Your task to perform on an android device: Open Youtube and go to the subscriptions tab Image 0: 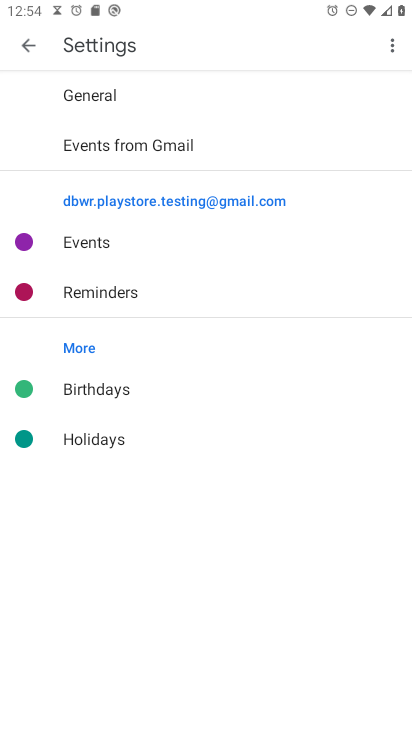
Step 0: press home button
Your task to perform on an android device: Open Youtube and go to the subscriptions tab Image 1: 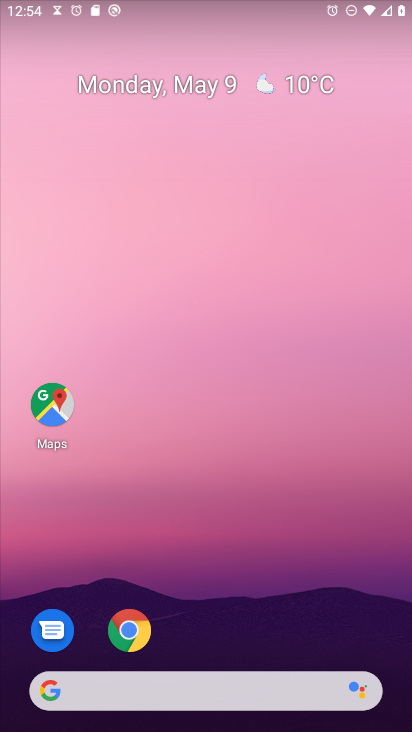
Step 1: drag from (225, 692) to (340, 87)
Your task to perform on an android device: Open Youtube and go to the subscriptions tab Image 2: 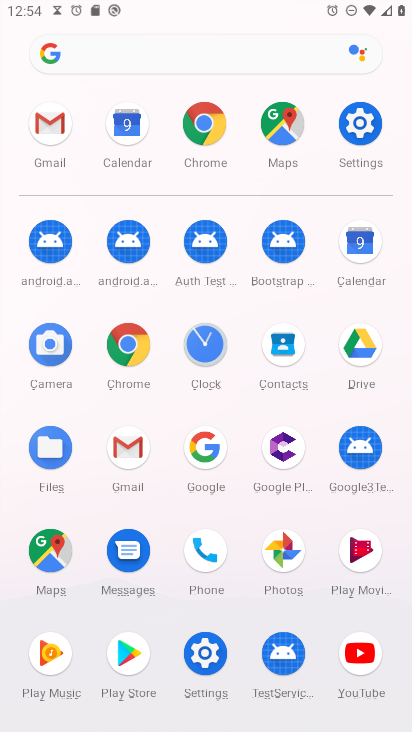
Step 2: click (358, 657)
Your task to perform on an android device: Open Youtube and go to the subscriptions tab Image 3: 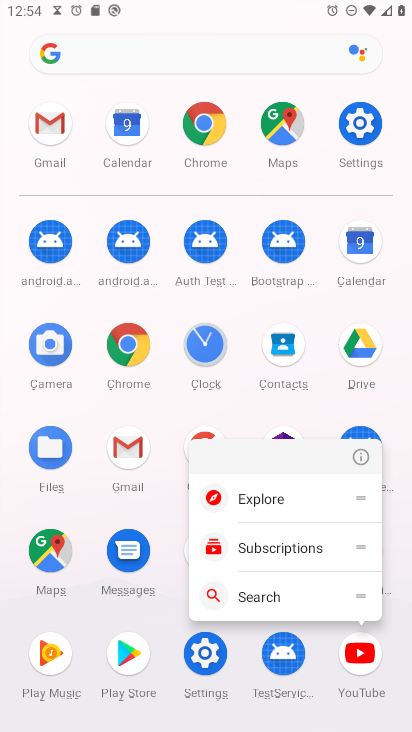
Step 3: click (363, 651)
Your task to perform on an android device: Open Youtube and go to the subscriptions tab Image 4: 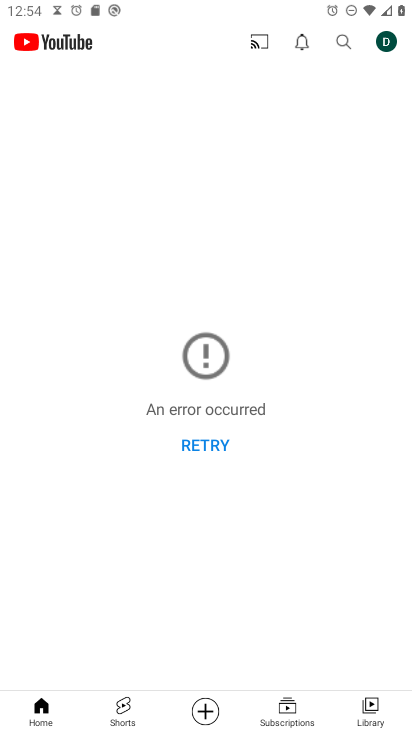
Step 4: click (210, 442)
Your task to perform on an android device: Open Youtube and go to the subscriptions tab Image 5: 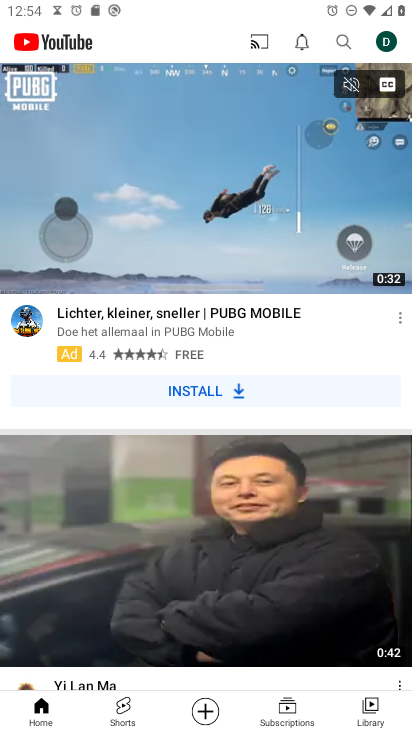
Step 5: click (292, 713)
Your task to perform on an android device: Open Youtube and go to the subscriptions tab Image 6: 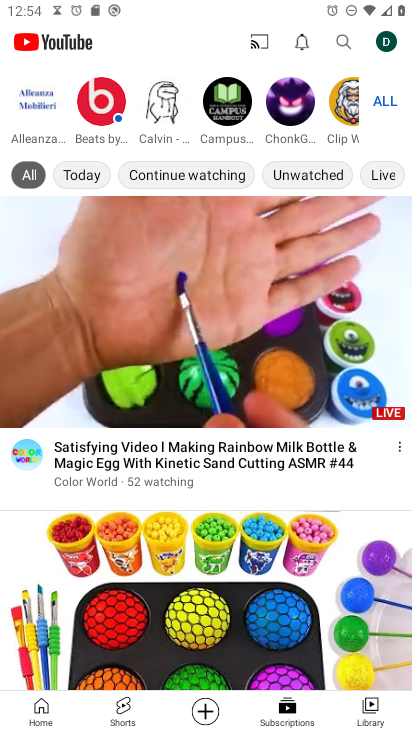
Step 6: task complete